Your task to perform on an android device: Clear all items from cart on walmart. Search for "razer kraken" on walmart, select the first entry, add it to the cart, then select checkout. Image 0: 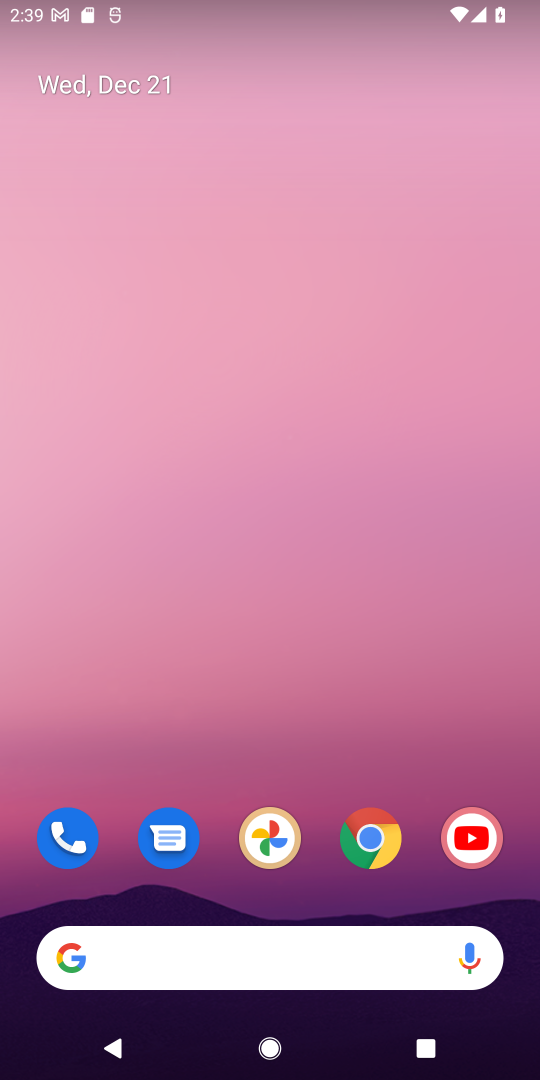
Step 0: click (358, 865)
Your task to perform on an android device: Clear all items from cart on walmart. Search for "razer kraken" on walmart, select the first entry, add it to the cart, then select checkout. Image 1: 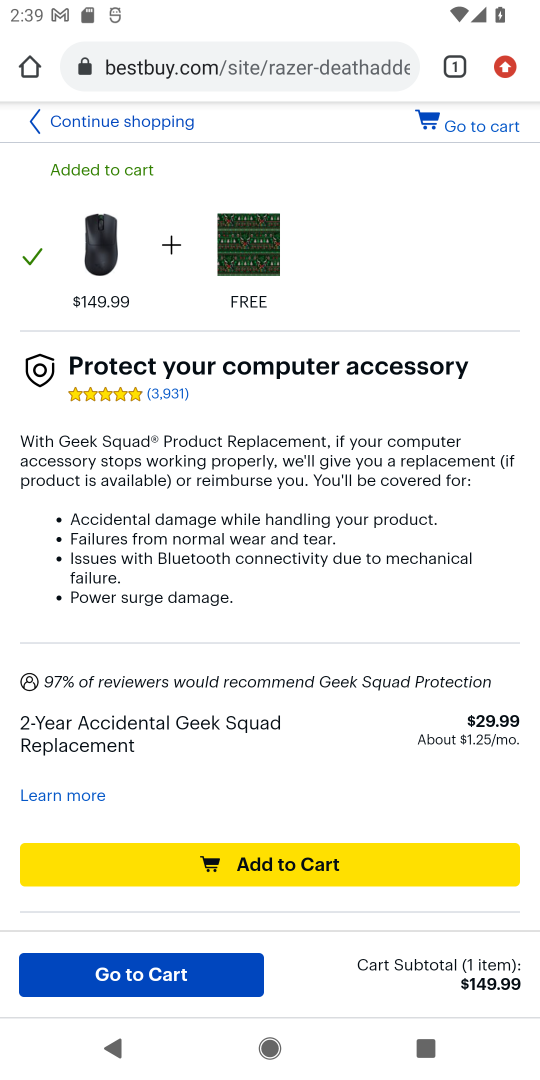
Step 1: click (220, 68)
Your task to perform on an android device: Clear all items from cart on walmart. Search for "razer kraken" on walmart, select the first entry, add it to the cart, then select checkout. Image 2: 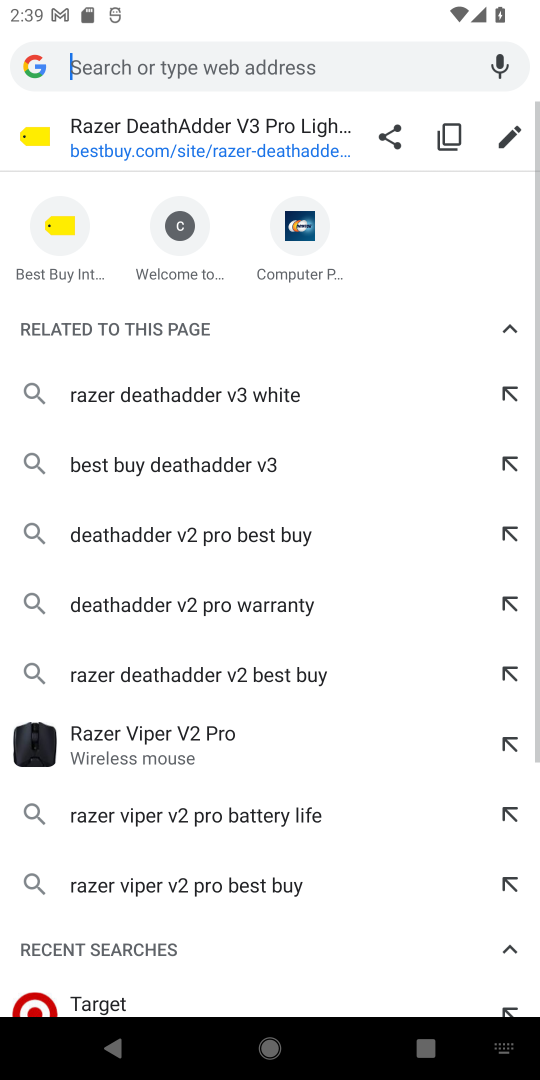
Step 2: type "walmart"
Your task to perform on an android device: Clear all items from cart on walmart. Search for "razer kraken" on walmart, select the first entry, add it to the cart, then select checkout. Image 3: 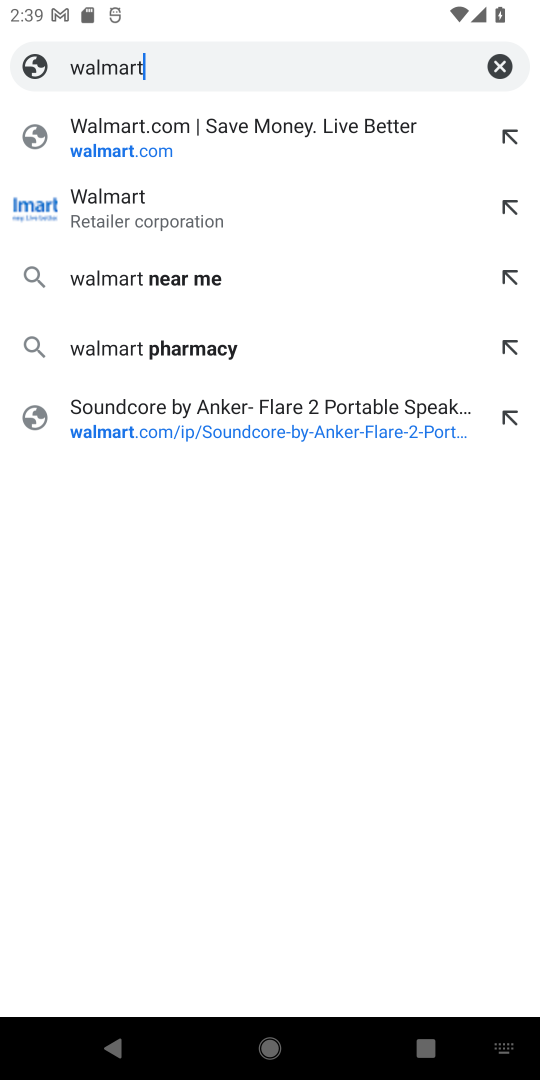
Step 3: click (207, 135)
Your task to perform on an android device: Clear all items from cart on walmart. Search for "razer kraken" on walmart, select the first entry, add it to the cart, then select checkout. Image 4: 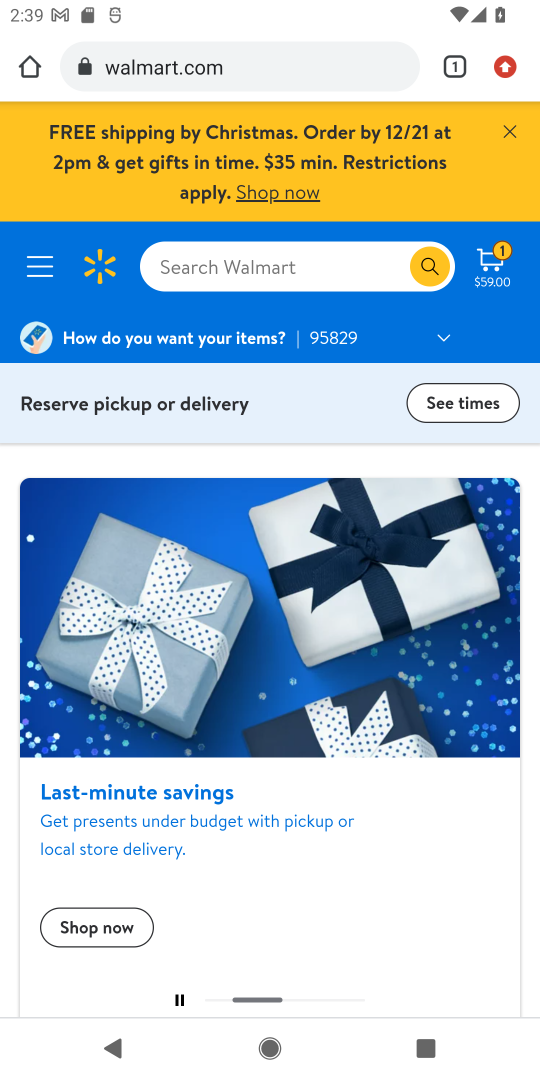
Step 4: click (284, 261)
Your task to perform on an android device: Clear all items from cart on walmart. Search for "razer kraken" on walmart, select the first entry, add it to the cart, then select checkout. Image 5: 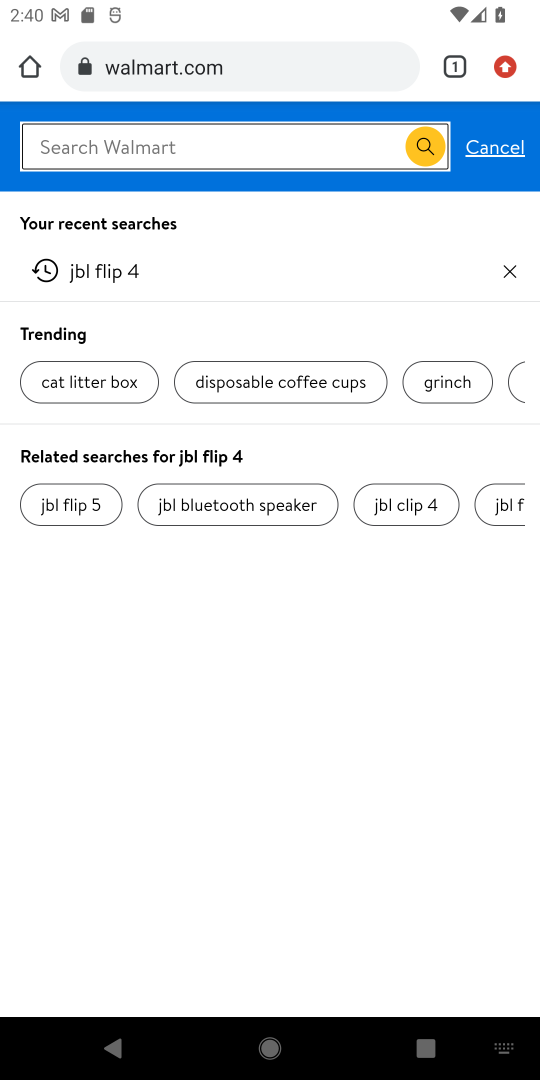
Step 5: type "razer karken"
Your task to perform on an android device: Clear all items from cart on walmart. Search for "razer kraken" on walmart, select the first entry, add it to the cart, then select checkout. Image 6: 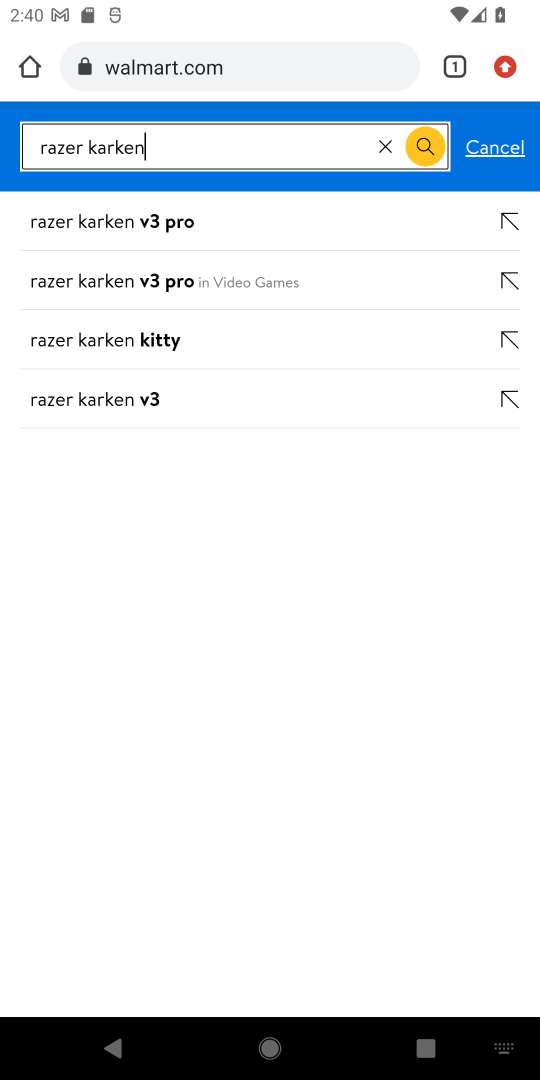
Step 6: click (431, 147)
Your task to perform on an android device: Clear all items from cart on walmart. Search for "razer kraken" on walmart, select the first entry, add it to the cart, then select checkout. Image 7: 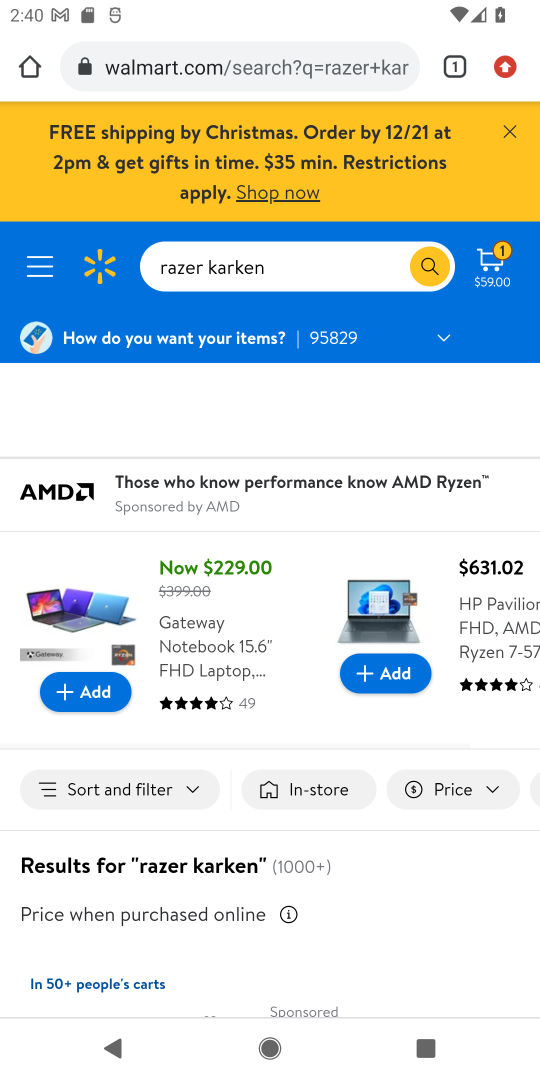
Step 7: click (505, 134)
Your task to perform on an android device: Clear all items from cart on walmart. Search for "razer kraken" on walmart, select the first entry, add it to the cart, then select checkout. Image 8: 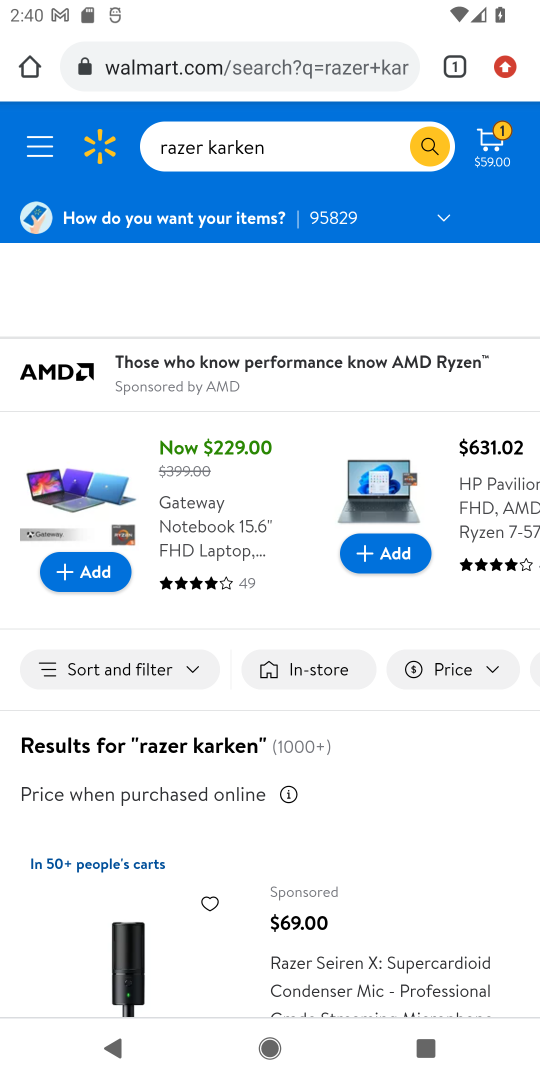
Step 8: task complete